Your task to perform on an android device: open chrome and create a bookmark for the current page Image 0: 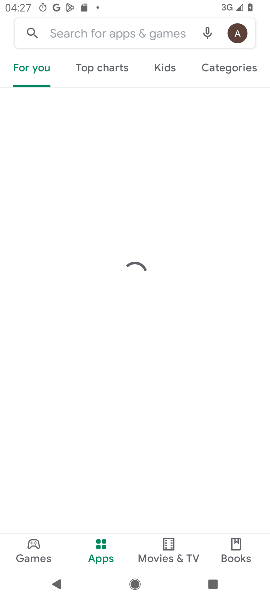
Step 0: press home button
Your task to perform on an android device: open chrome and create a bookmark for the current page Image 1: 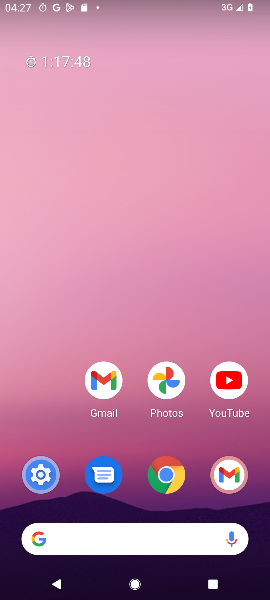
Step 1: drag from (61, 434) to (71, 160)
Your task to perform on an android device: open chrome and create a bookmark for the current page Image 2: 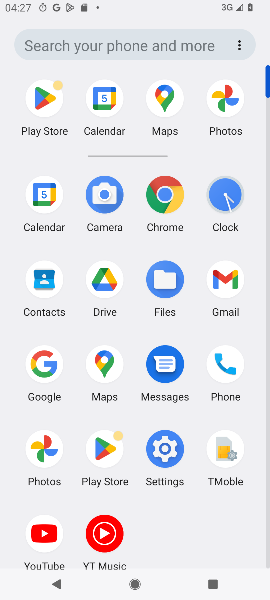
Step 2: click (172, 198)
Your task to perform on an android device: open chrome and create a bookmark for the current page Image 3: 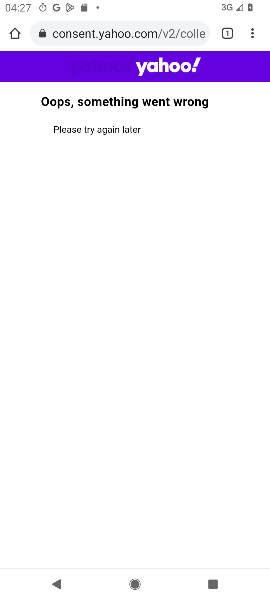
Step 3: click (251, 35)
Your task to perform on an android device: open chrome and create a bookmark for the current page Image 4: 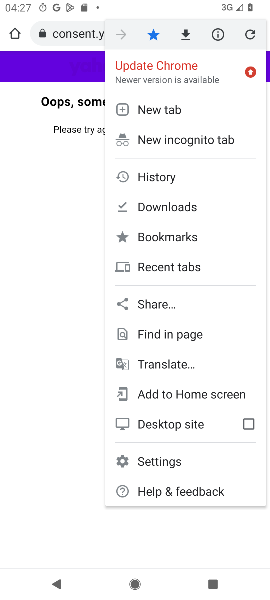
Step 4: task complete